Your task to perform on an android device: Go to location settings Image 0: 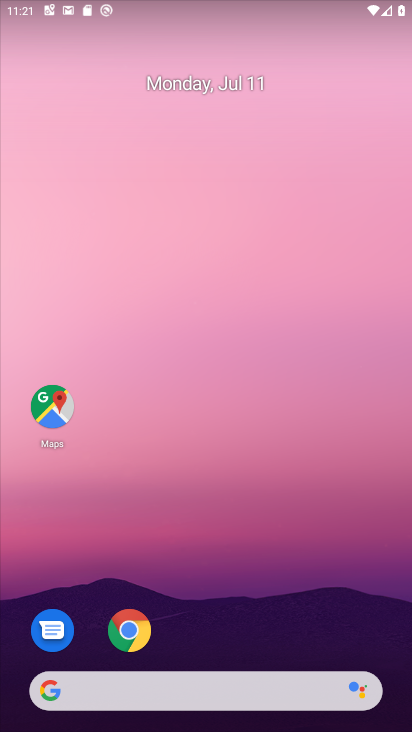
Step 0: drag from (249, 443) to (255, 8)
Your task to perform on an android device: Go to location settings Image 1: 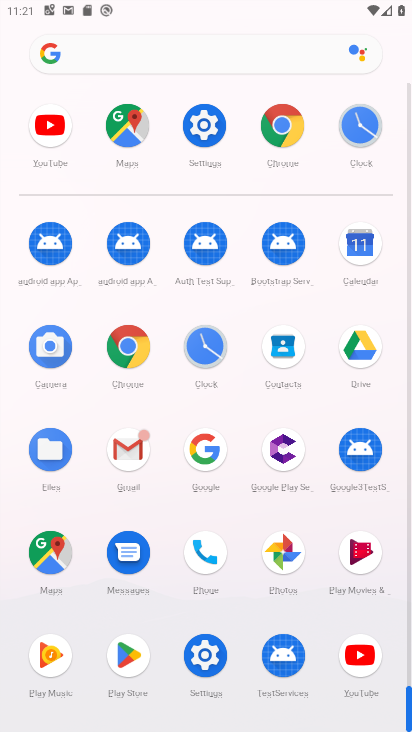
Step 1: drag from (219, 553) to (260, 180)
Your task to perform on an android device: Go to location settings Image 2: 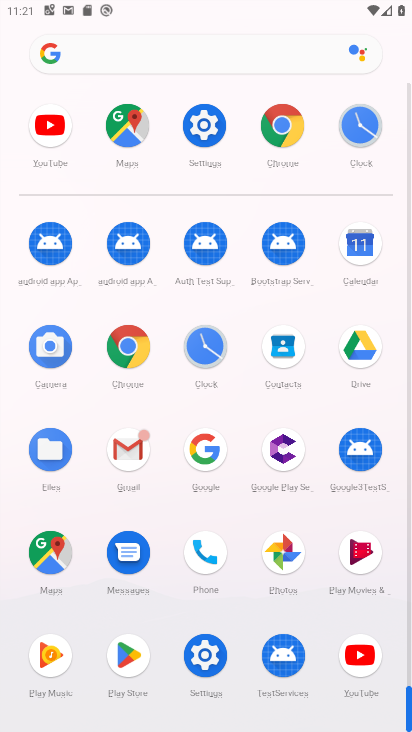
Step 2: click (202, 148)
Your task to perform on an android device: Go to location settings Image 3: 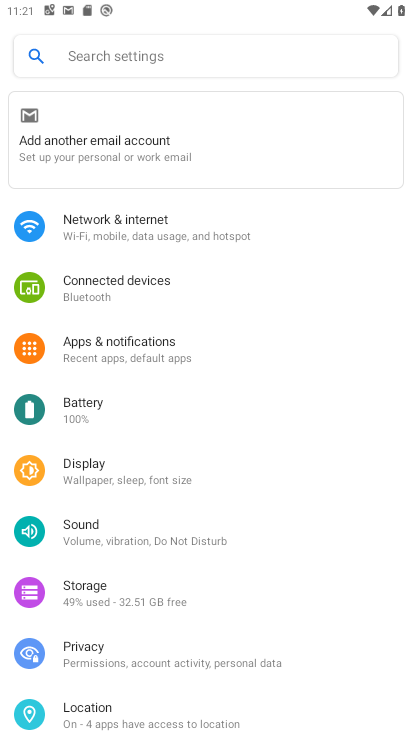
Step 3: click (124, 701)
Your task to perform on an android device: Go to location settings Image 4: 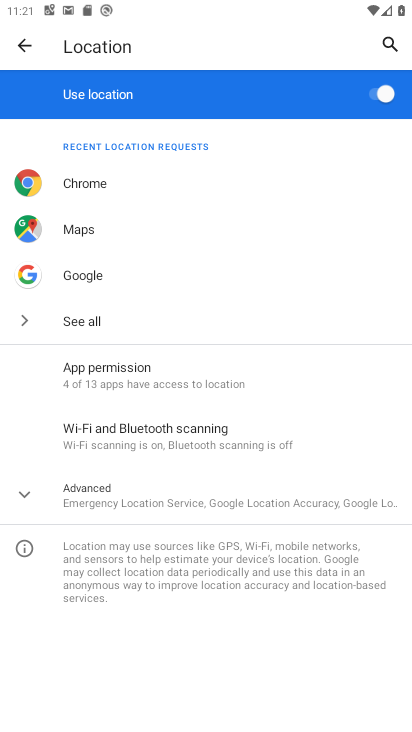
Step 4: task complete